Your task to perform on an android device: Go to Wikipedia Image 0: 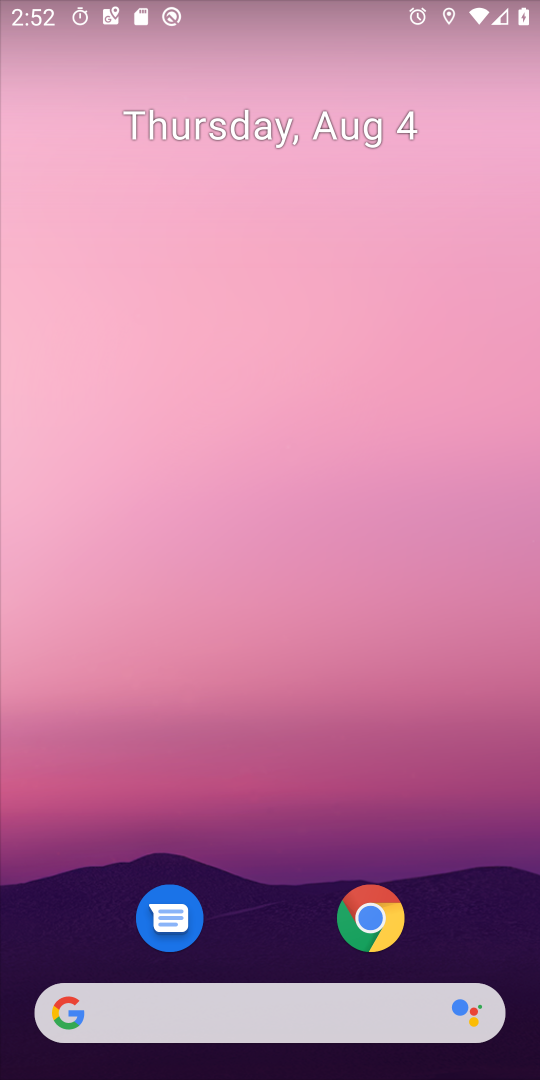
Step 0: click (399, 892)
Your task to perform on an android device: Go to Wikipedia Image 1: 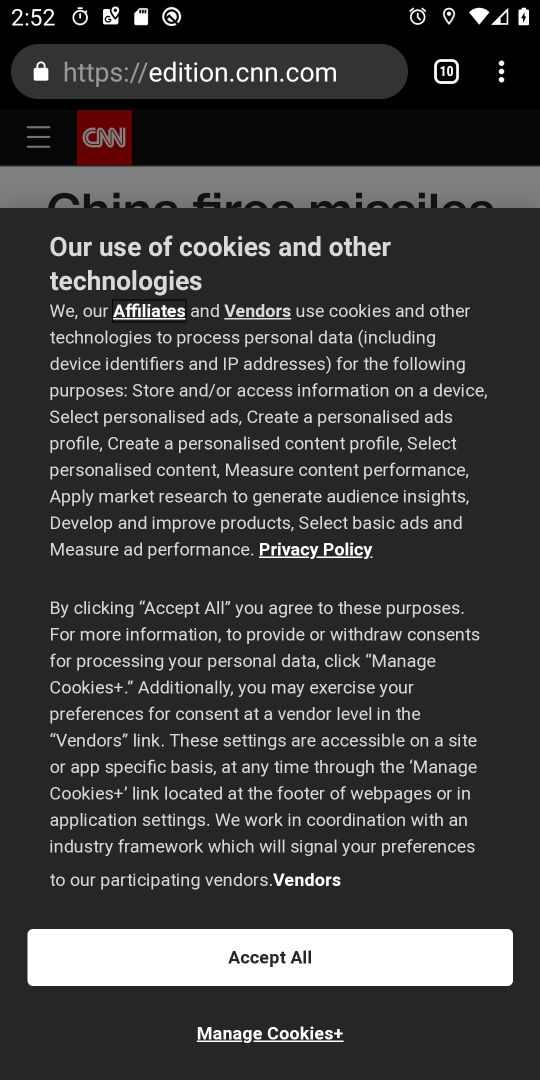
Step 1: click (455, 81)
Your task to perform on an android device: Go to Wikipedia Image 2: 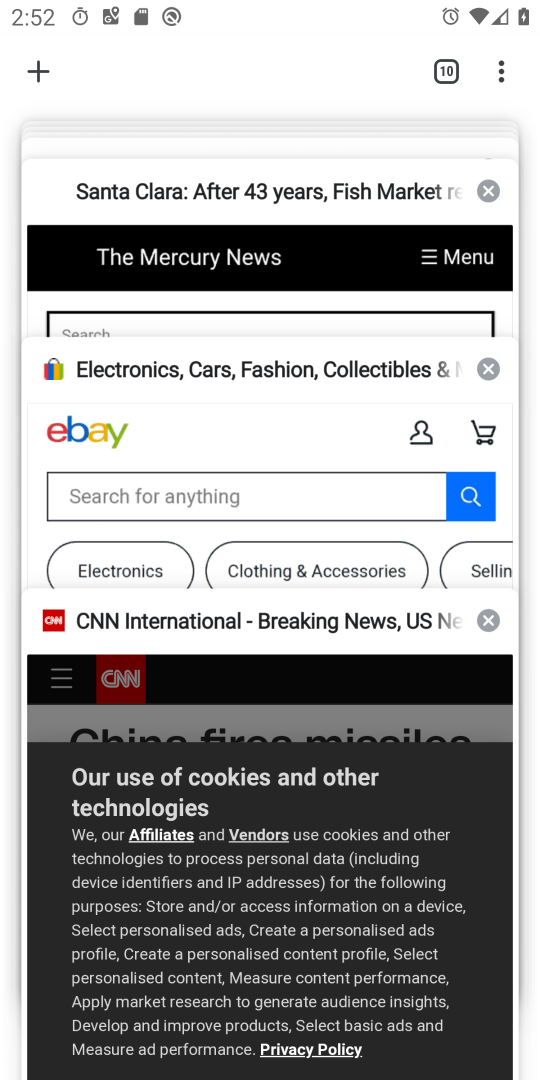
Step 2: click (31, 80)
Your task to perform on an android device: Go to Wikipedia Image 3: 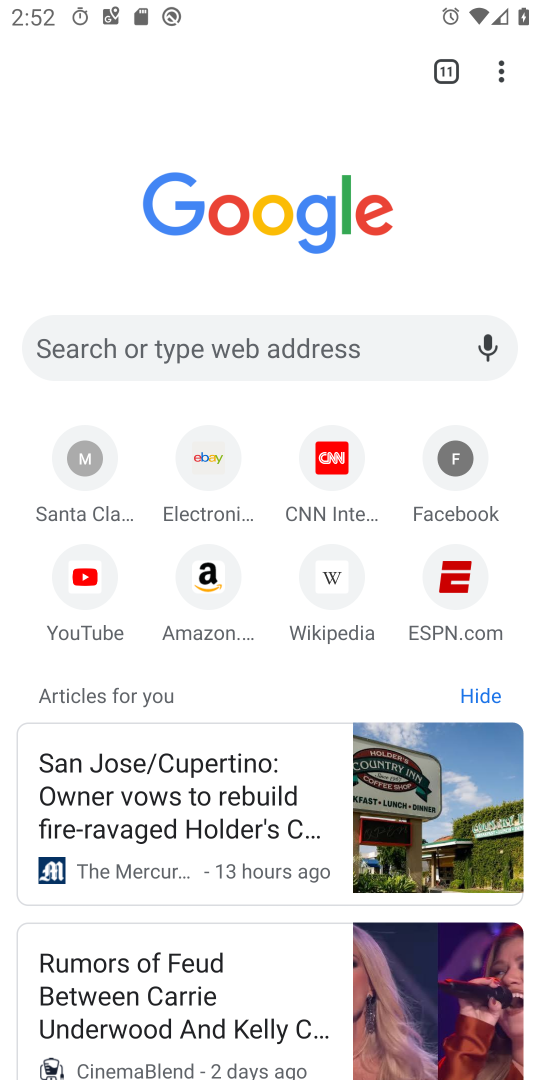
Step 3: click (335, 554)
Your task to perform on an android device: Go to Wikipedia Image 4: 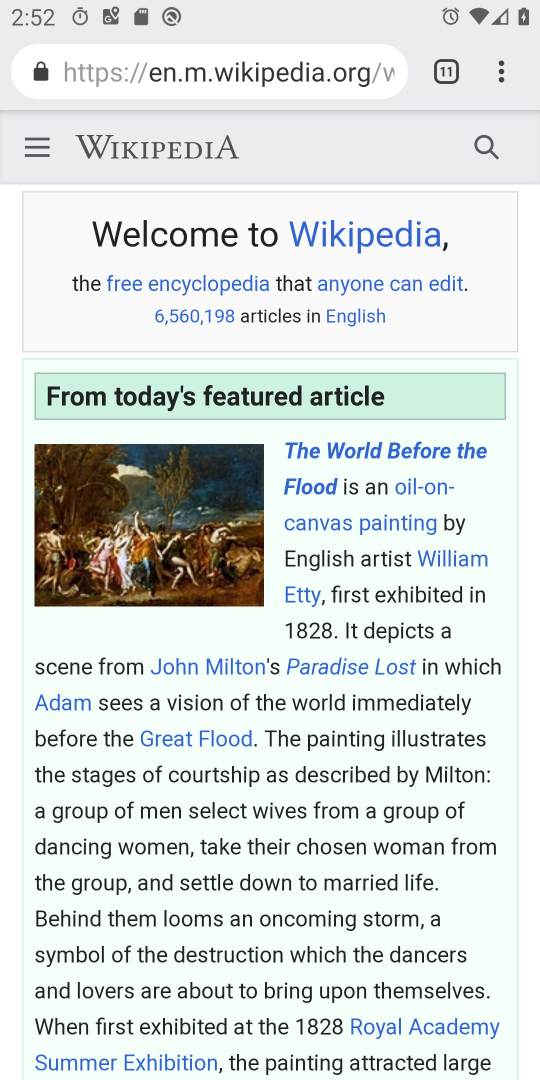
Step 4: task complete